Your task to perform on an android device: What's the weather? Image 0: 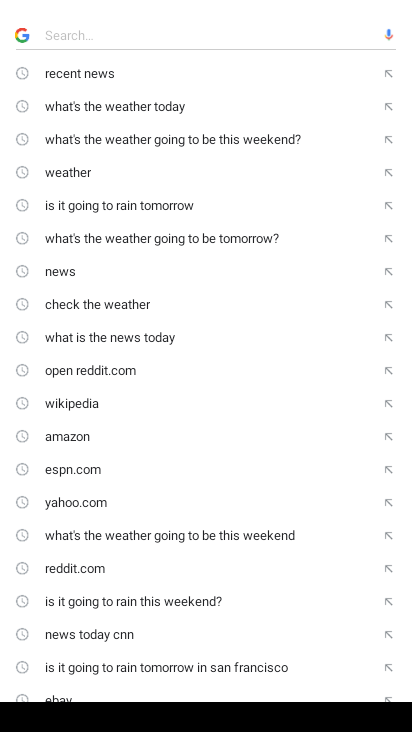
Step 0: click (90, 172)
Your task to perform on an android device: What's the weather? Image 1: 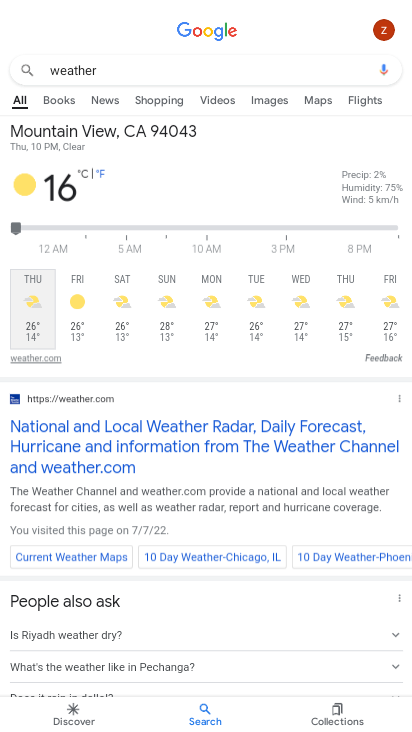
Step 1: task complete